Your task to perform on an android device: turn off location history Image 0: 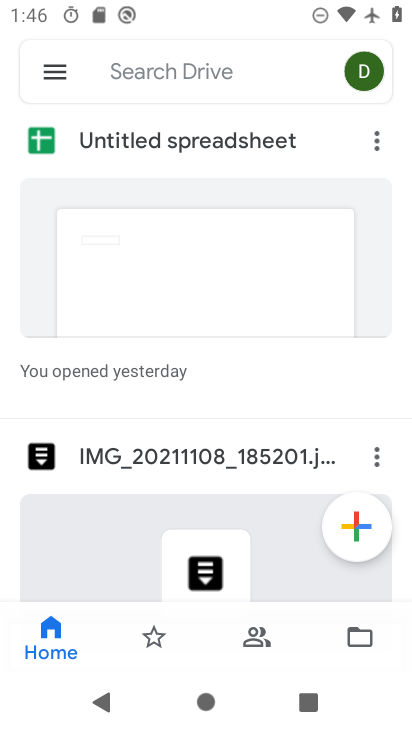
Step 0: press home button
Your task to perform on an android device: turn off location history Image 1: 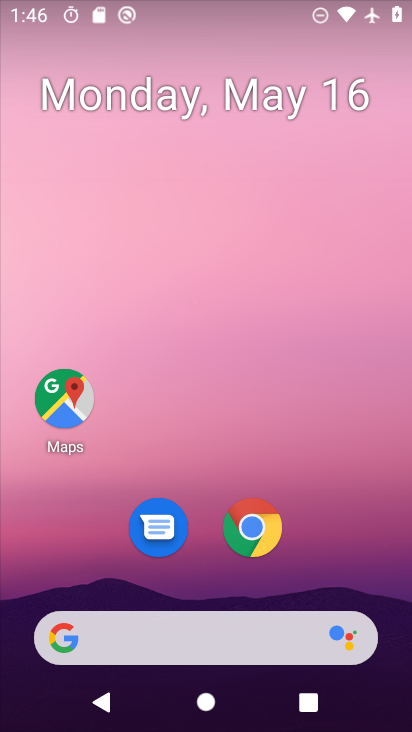
Step 1: drag from (171, 645) to (323, 183)
Your task to perform on an android device: turn off location history Image 2: 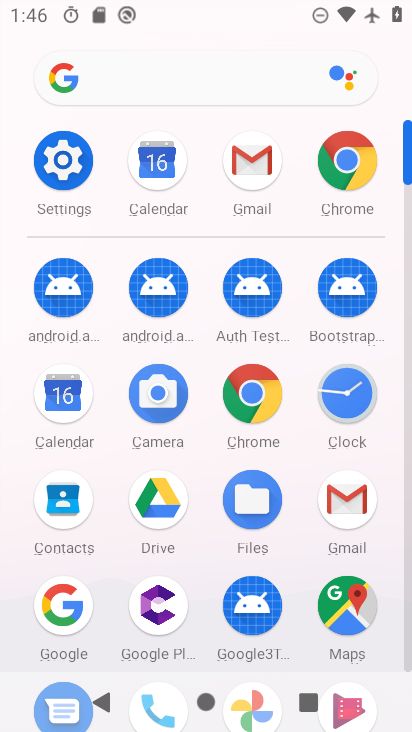
Step 2: click (70, 162)
Your task to perform on an android device: turn off location history Image 3: 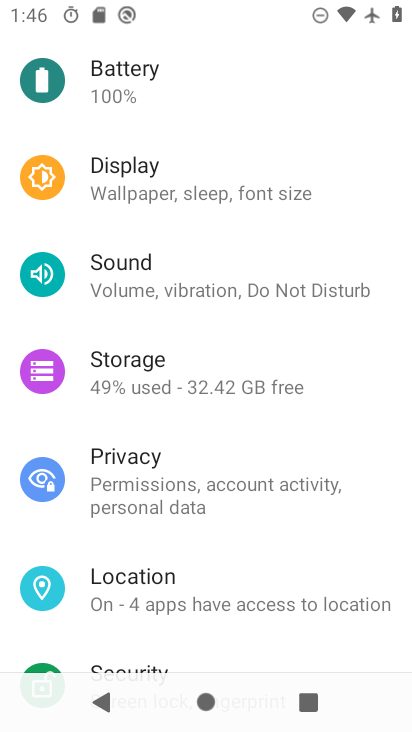
Step 3: click (146, 587)
Your task to perform on an android device: turn off location history Image 4: 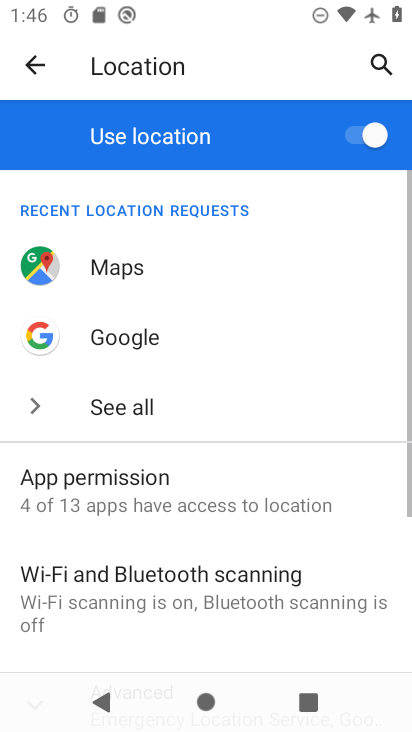
Step 4: drag from (200, 629) to (331, 77)
Your task to perform on an android device: turn off location history Image 5: 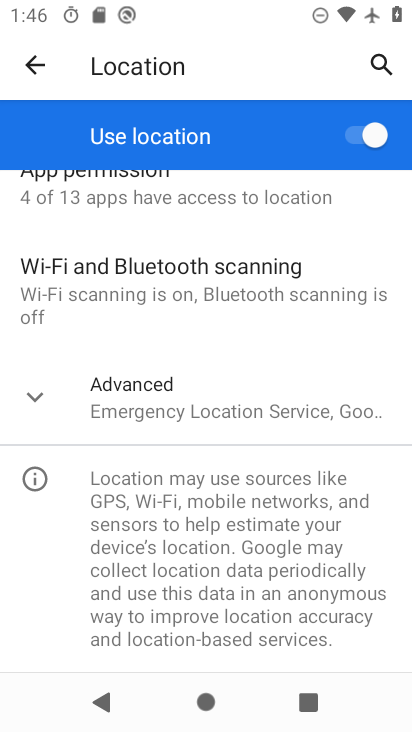
Step 5: click (139, 395)
Your task to perform on an android device: turn off location history Image 6: 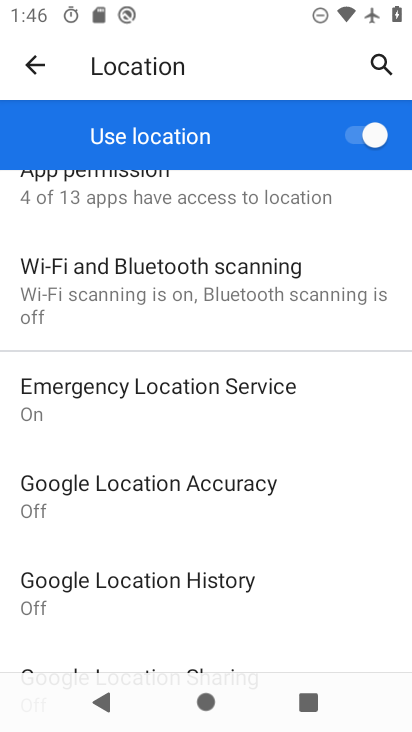
Step 6: click (176, 590)
Your task to perform on an android device: turn off location history Image 7: 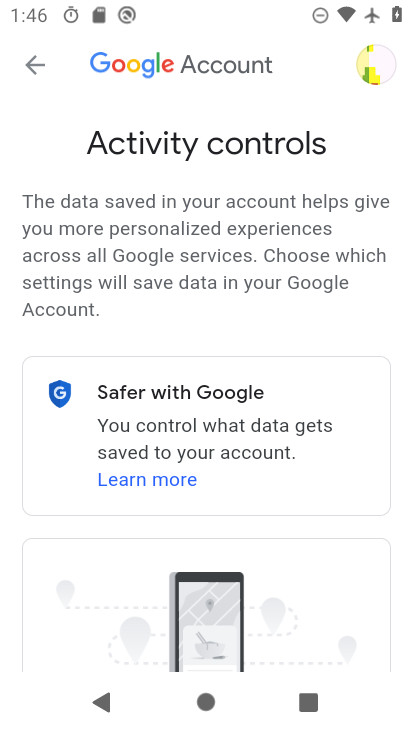
Step 7: task complete